Your task to perform on an android device: Show me the alarms in the clock app Image 0: 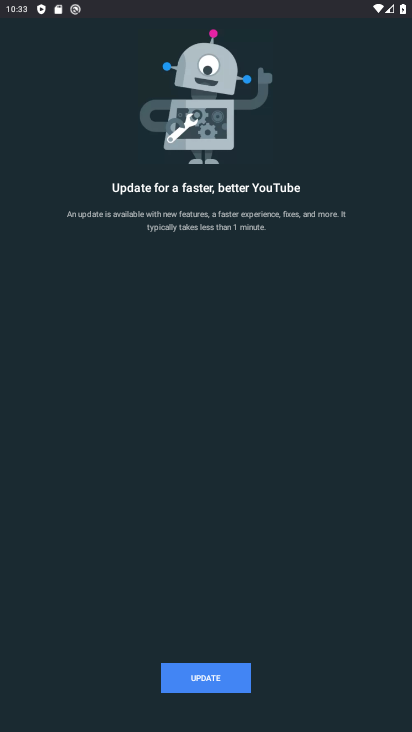
Step 0: press home button
Your task to perform on an android device: Show me the alarms in the clock app Image 1: 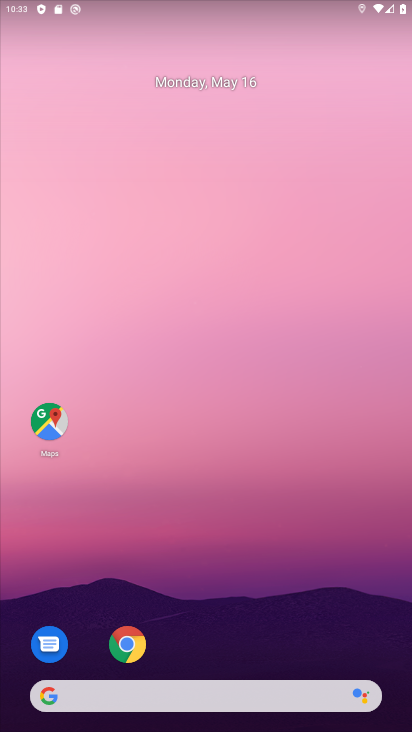
Step 1: drag from (207, 727) to (207, 175)
Your task to perform on an android device: Show me the alarms in the clock app Image 2: 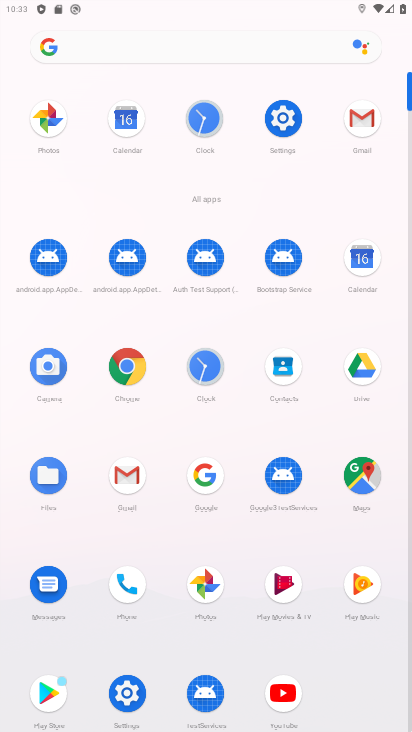
Step 2: click (207, 363)
Your task to perform on an android device: Show me the alarms in the clock app Image 3: 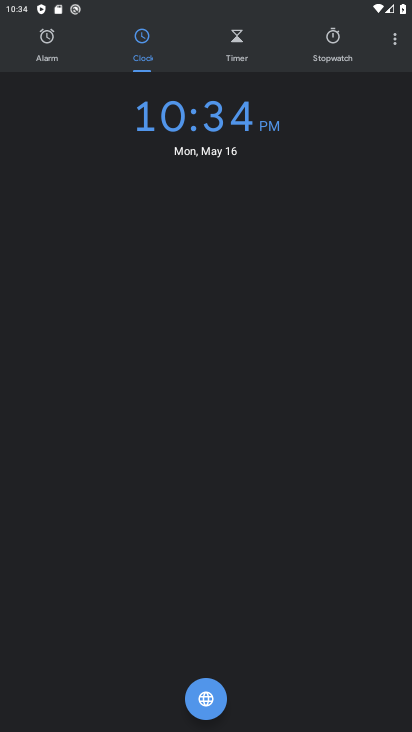
Step 3: click (42, 38)
Your task to perform on an android device: Show me the alarms in the clock app Image 4: 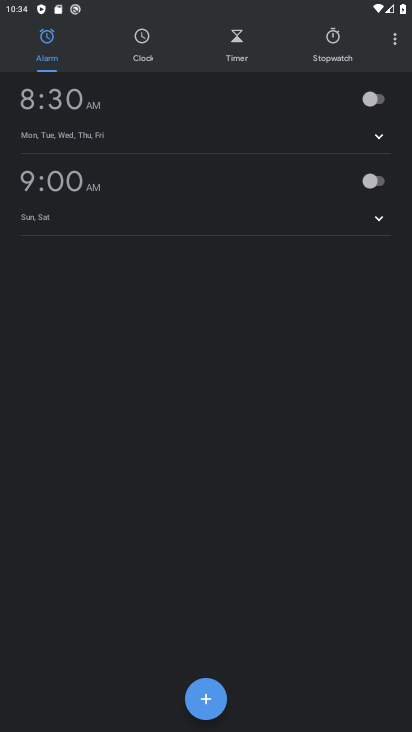
Step 4: task complete